Your task to perform on an android device: Open the Play Movies app and select the watchlist tab. Image 0: 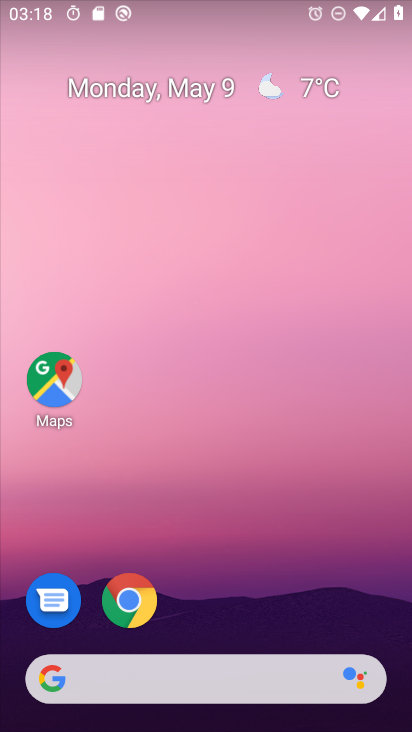
Step 0: drag from (228, 658) to (258, 180)
Your task to perform on an android device: Open the Play Movies app and select the watchlist tab. Image 1: 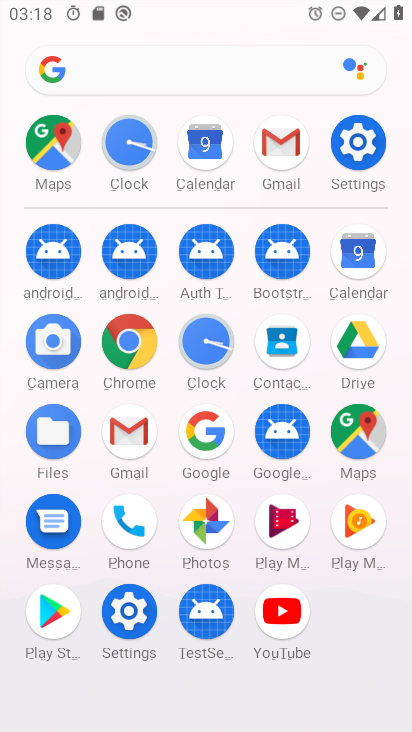
Step 1: click (292, 535)
Your task to perform on an android device: Open the Play Movies app and select the watchlist tab. Image 2: 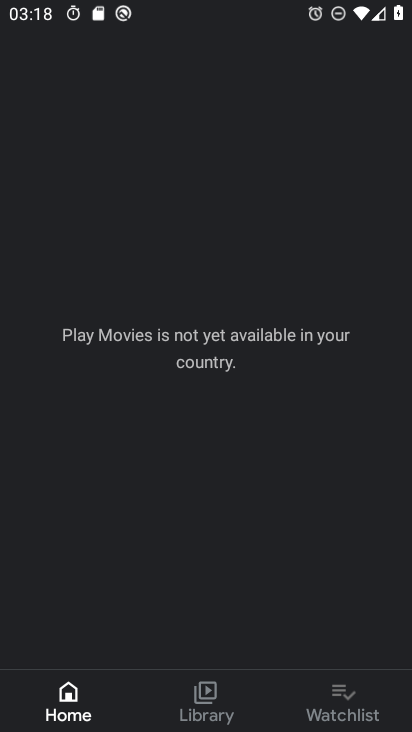
Step 2: click (358, 723)
Your task to perform on an android device: Open the Play Movies app and select the watchlist tab. Image 3: 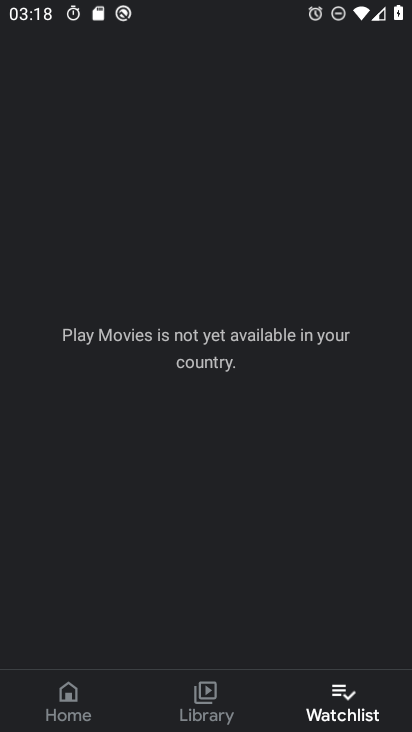
Step 3: task complete